Your task to perform on an android device: turn on data saver in the chrome app Image 0: 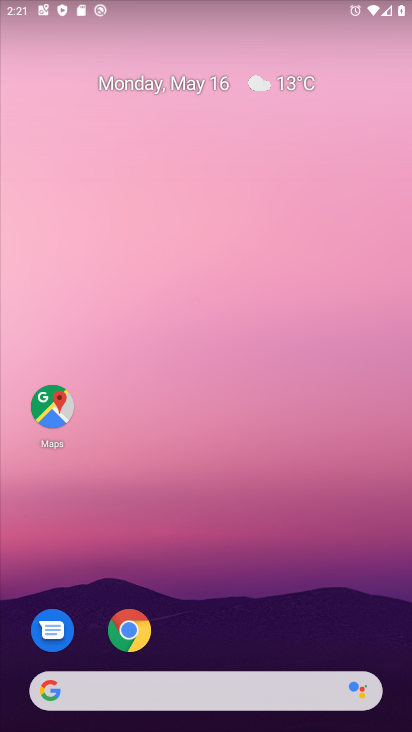
Step 0: click (122, 629)
Your task to perform on an android device: turn on data saver in the chrome app Image 1: 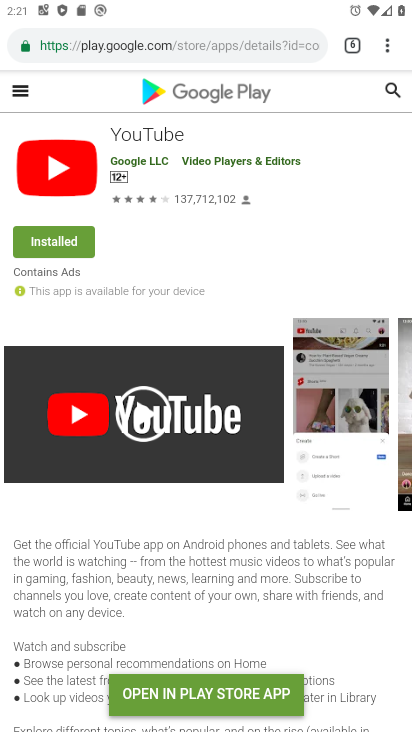
Step 1: click (386, 35)
Your task to perform on an android device: turn on data saver in the chrome app Image 2: 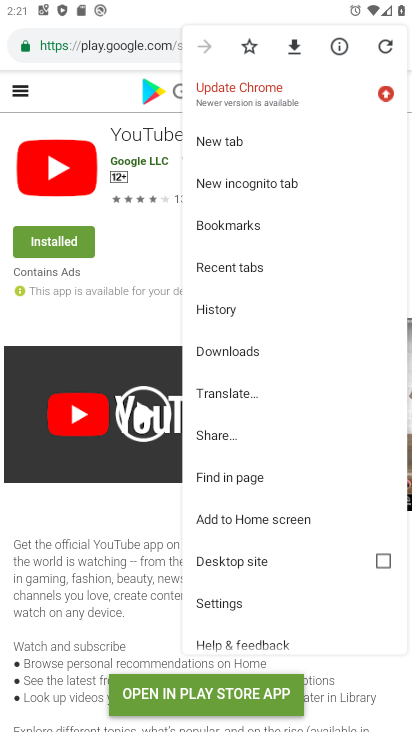
Step 2: click (262, 597)
Your task to perform on an android device: turn on data saver in the chrome app Image 3: 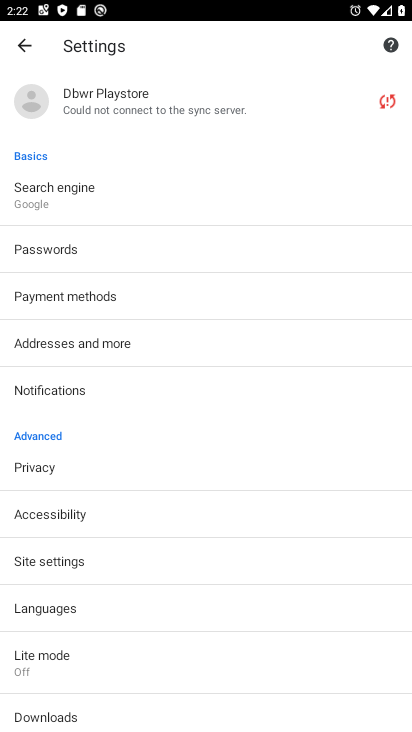
Step 3: click (128, 542)
Your task to perform on an android device: turn on data saver in the chrome app Image 4: 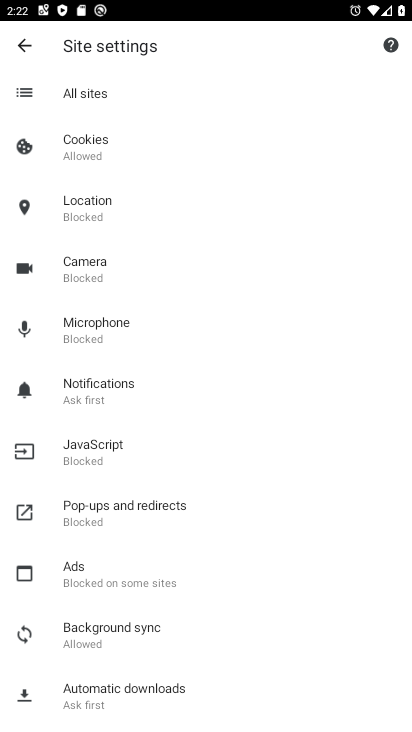
Step 4: drag from (249, 589) to (203, 187)
Your task to perform on an android device: turn on data saver in the chrome app Image 5: 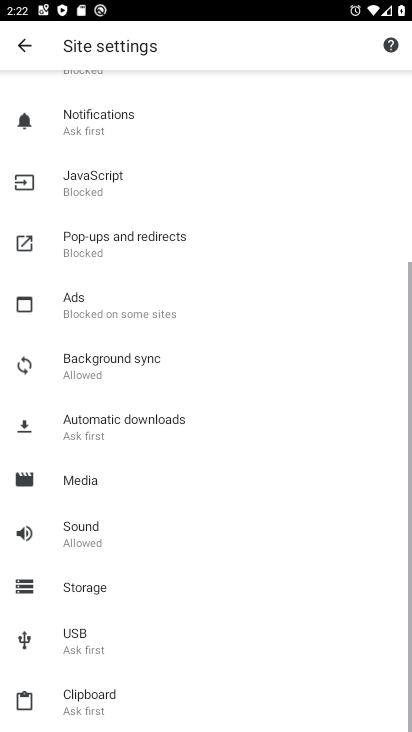
Step 5: drag from (216, 580) to (233, 167)
Your task to perform on an android device: turn on data saver in the chrome app Image 6: 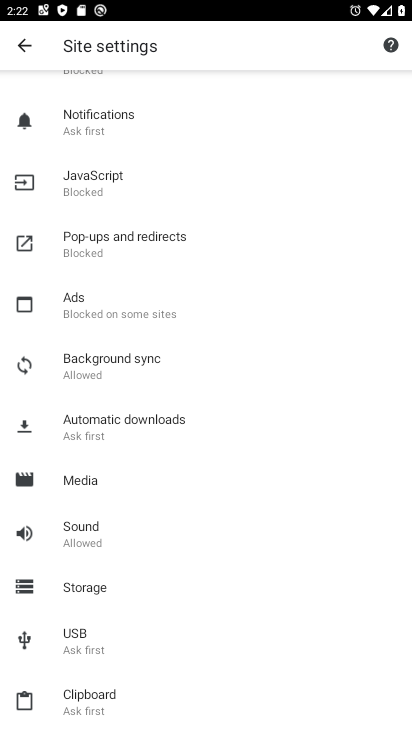
Step 6: press back button
Your task to perform on an android device: turn on data saver in the chrome app Image 7: 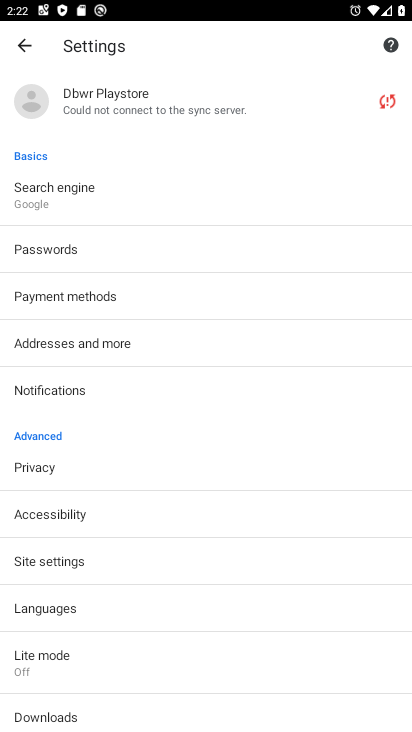
Step 7: click (65, 515)
Your task to perform on an android device: turn on data saver in the chrome app Image 8: 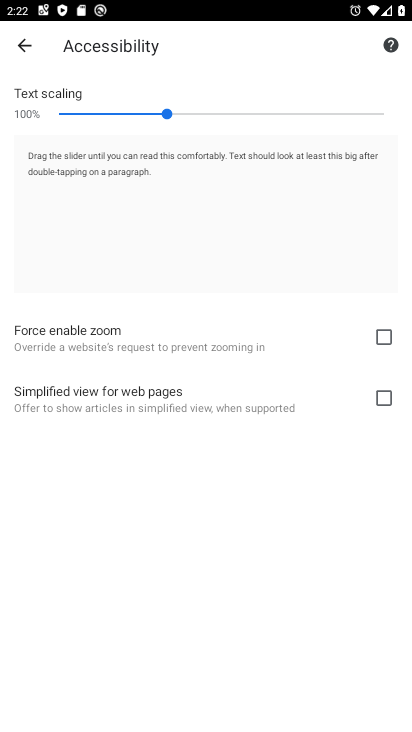
Step 8: press back button
Your task to perform on an android device: turn on data saver in the chrome app Image 9: 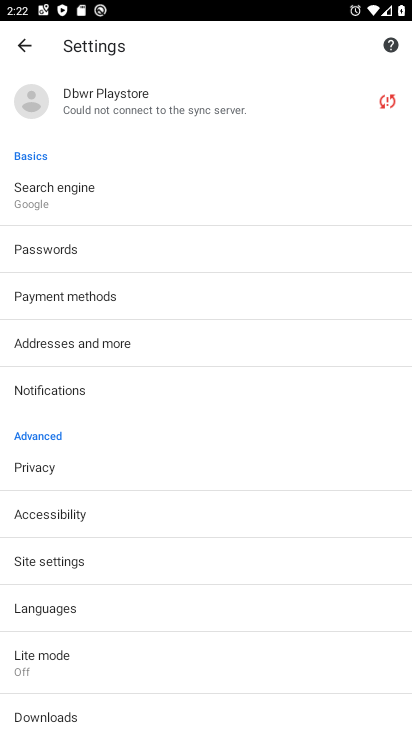
Step 9: click (178, 471)
Your task to perform on an android device: turn on data saver in the chrome app Image 10: 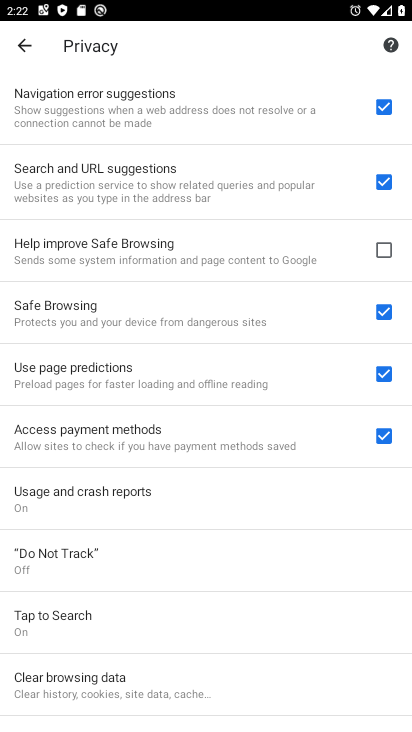
Step 10: drag from (246, 553) to (200, 134)
Your task to perform on an android device: turn on data saver in the chrome app Image 11: 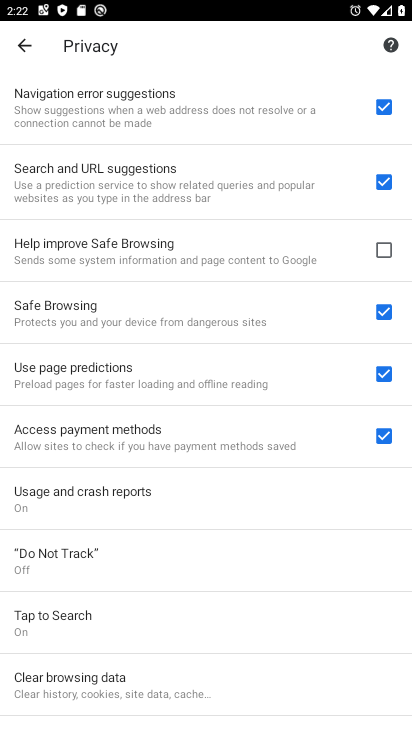
Step 11: press back button
Your task to perform on an android device: turn on data saver in the chrome app Image 12: 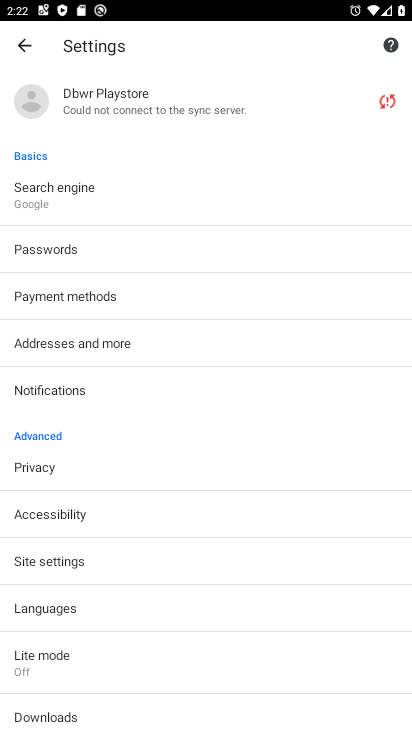
Step 12: drag from (148, 599) to (126, 297)
Your task to perform on an android device: turn on data saver in the chrome app Image 13: 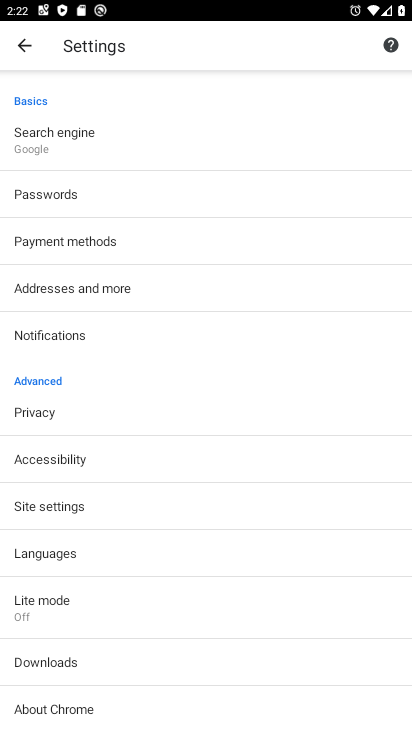
Step 13: drag from (156, 602) to (151, 355)
Your task to perform on an android device: turn on data saver in the chrome app Image 14: 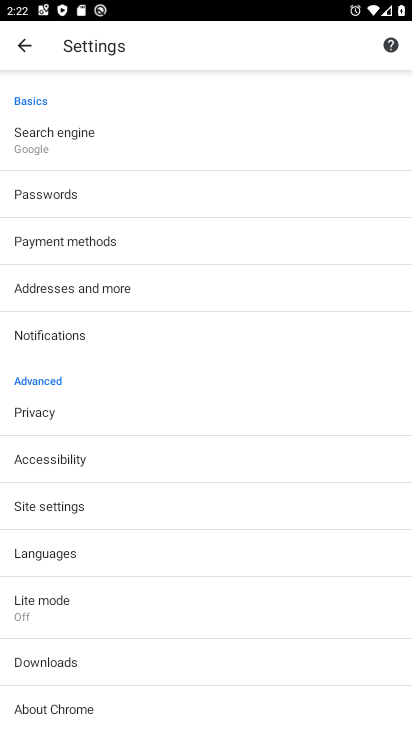
Step 14: click (134, 700)
Your task to perform on an android device: turn on data saver in the chrome app Image 15: 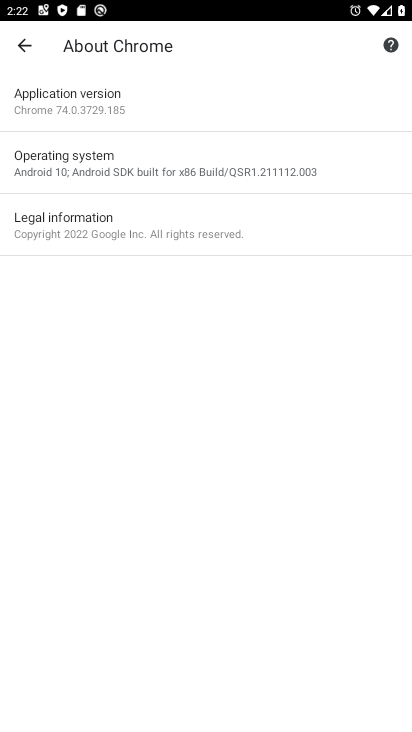
Step 15: task complete